Your task to perform on an android device: toggle data saver in the chrome app Image 0: 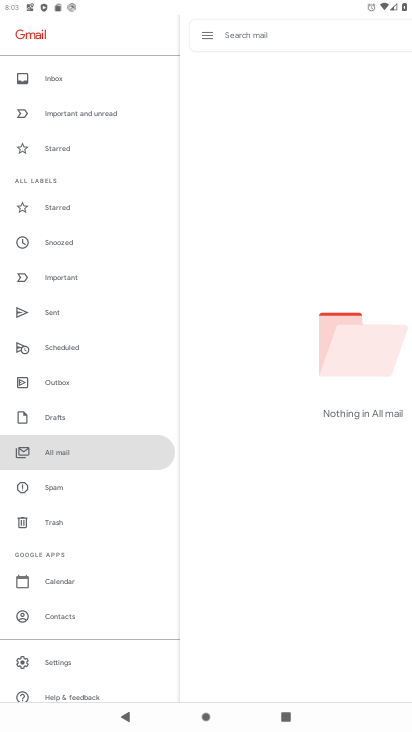
Step 0: press home button
Your task to perform on an android device: toggle data saver in the chrome app Image 1: 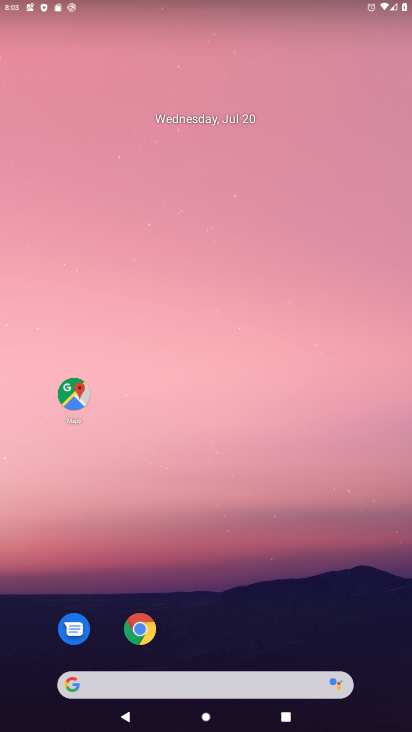
Step 1: click (144, 627)
Your task to perform on an android device: toggle data saver in the chrome app Image 2: 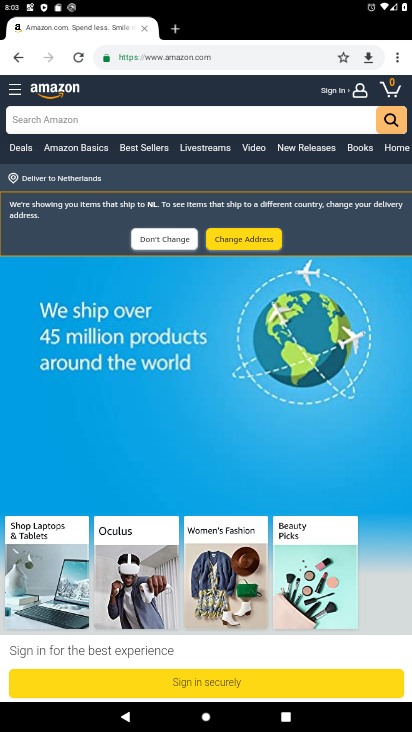
Step 2: click (394, 59)
Your task to perform on an android device: toggle data saver in the chrome app Image 3: 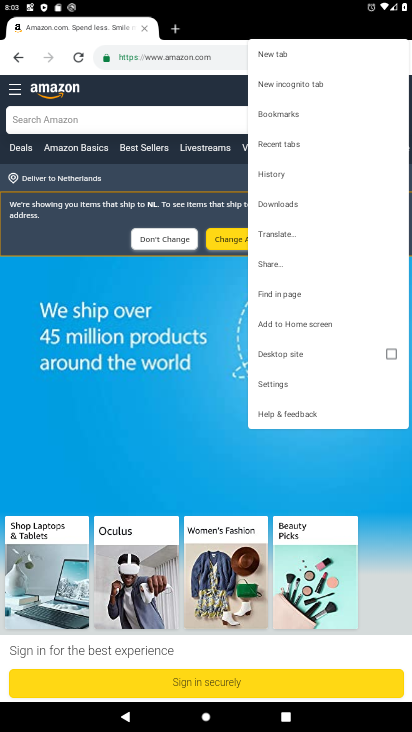
Step 3: click (282, 384)
Your task to perform on an android device: toggle data saver in the chrome app Image 4: 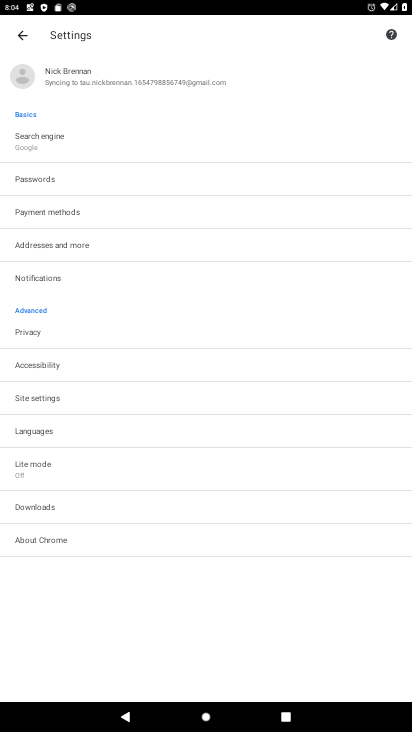
Step 4: click (35, 476)
Your task to perform on an android device: toggle data saver in the chrome app Image 5: 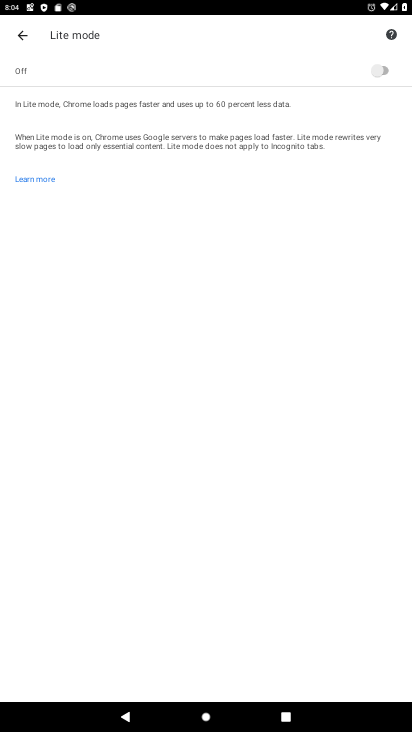
Step 5: click (379, 74)
Your task to perform on an android device: toggle data saver in the chrome app Image 6: 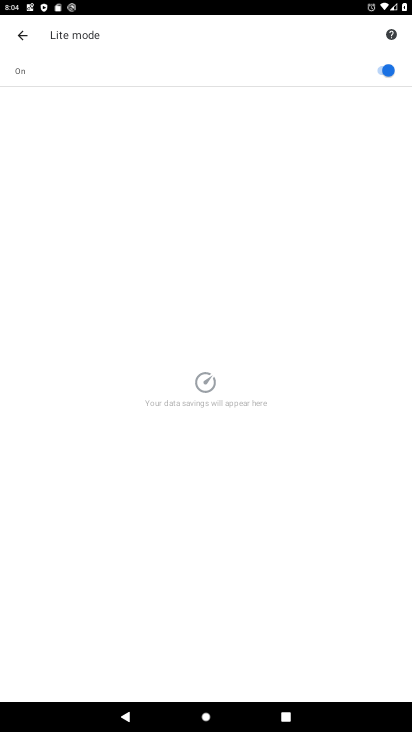
Step 6: task complete